Your task to perform on an android device: add a contact Image 0: 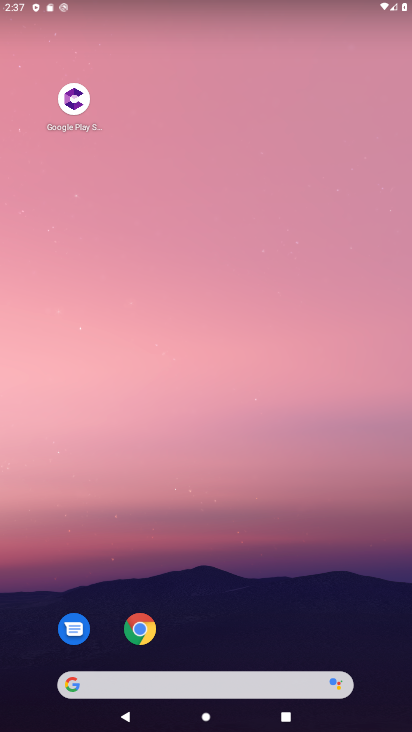
Step 0: drag from (292, 624) to (169, 158)
Your task to perform on an android device: add a contact Image 1: 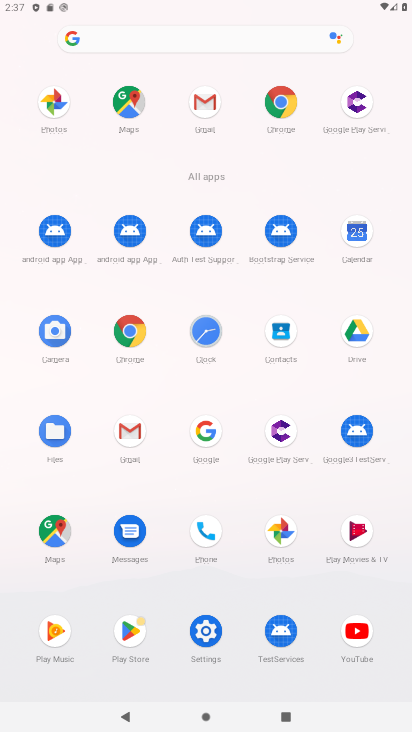
Step 1: click (281, 329)
Your task to perform on an android device: add a contact Image 2: 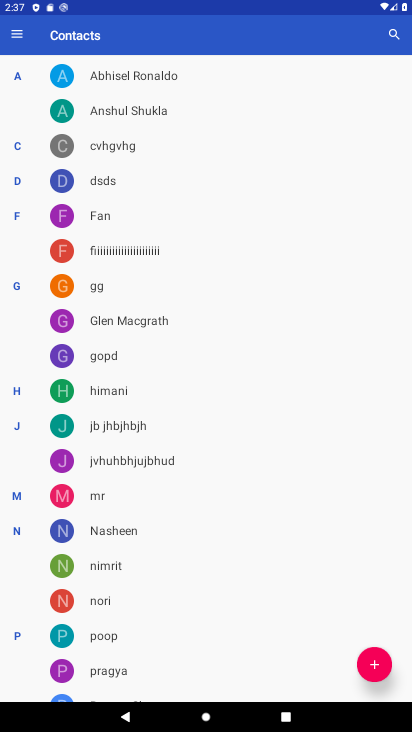
Step 2: click (371, 657)
Your task to perform on an android device: add a contact Image 3: 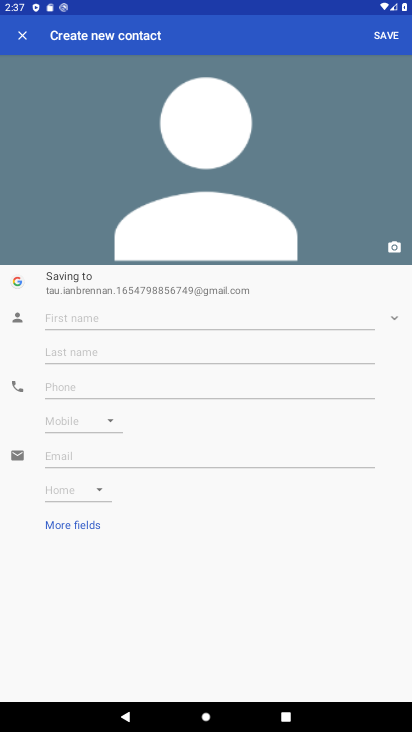
Step 3: click (112, 308)
Your task to perform on an android device: add a contact Image 4: 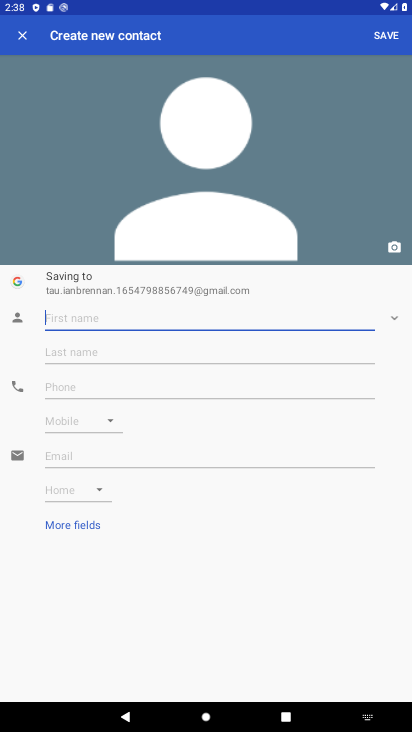
Step 4: type "gg"
Your task to perform on an android device: add a contact Image 5: 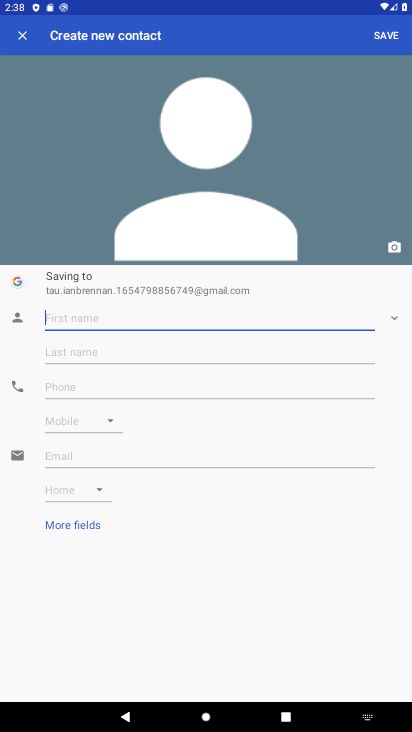
Step 5: click (65, 388)
Your task to perform on an android device: add a contact Image 6: 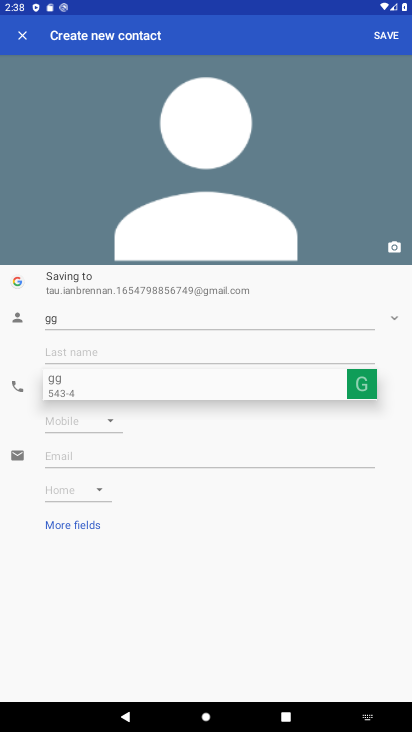
Step 6: type "6767677676"
Your task to perform on an android device: add a contact Image 7: 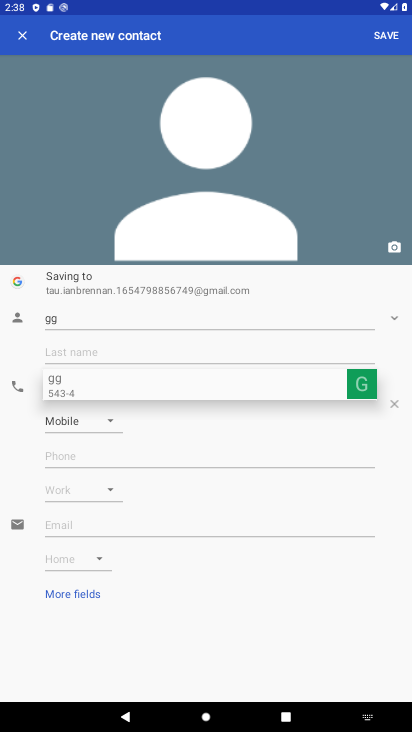
Step 7: click (381, 36)
Your task to perform on an android device: add a contact Image 8: 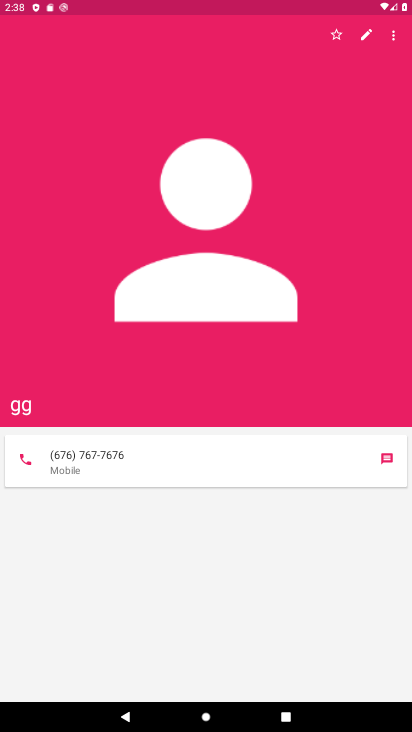
Step 8: task complete